Your task to perform on an android device: Open Reddit.com Image 0: 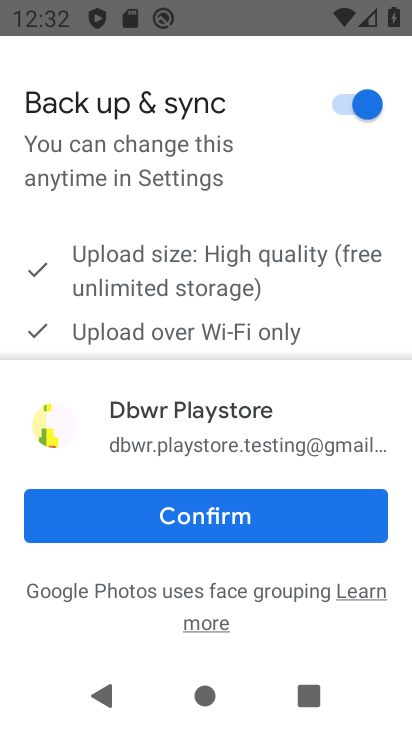
Step 0: press home button
Your task to perform on an android device: Open Reddit.com Image 1: 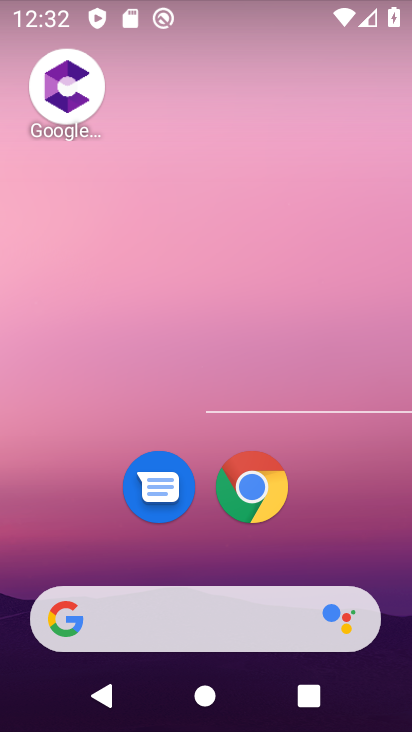
Step 1: click (270, 497)
Your task to perform on an android device: Open Reddit.com Image 2: 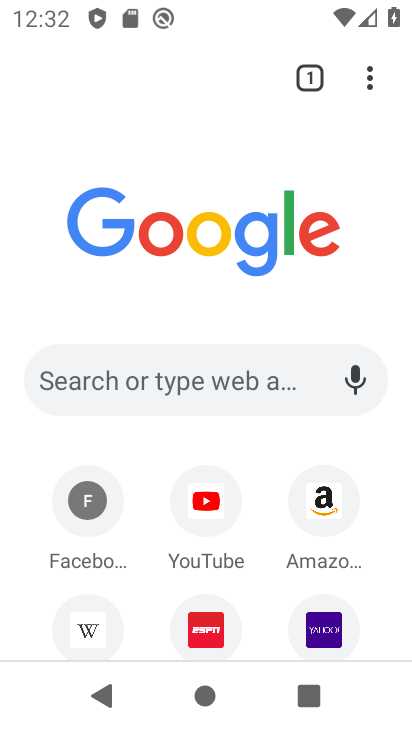
Step 2: click (240, 389)
Your task to perform on an android device: Open Reddit.com Image 3: 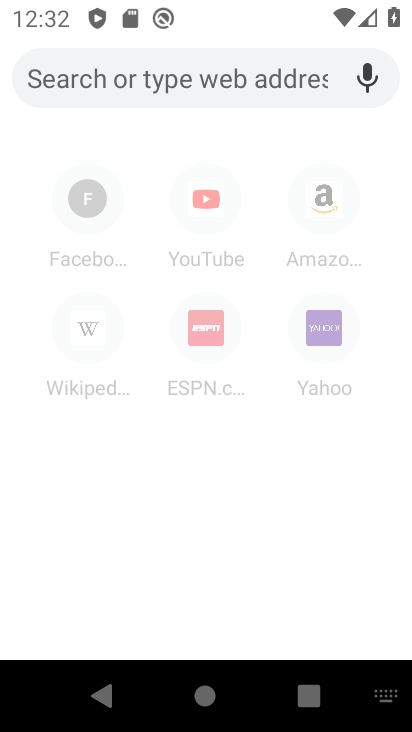
Step 3: type "Reddit.com"
Your task to perform on an android device: Open Reddit.com Image 4: 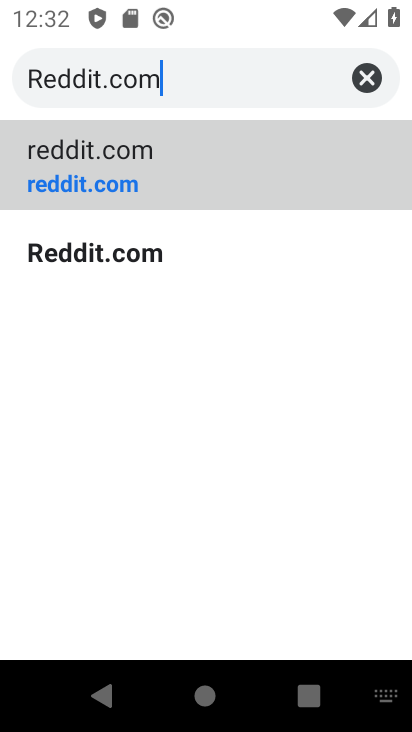
Step 4: type ""
Your task to perform on an android device: Open Reddit.com Image 5: 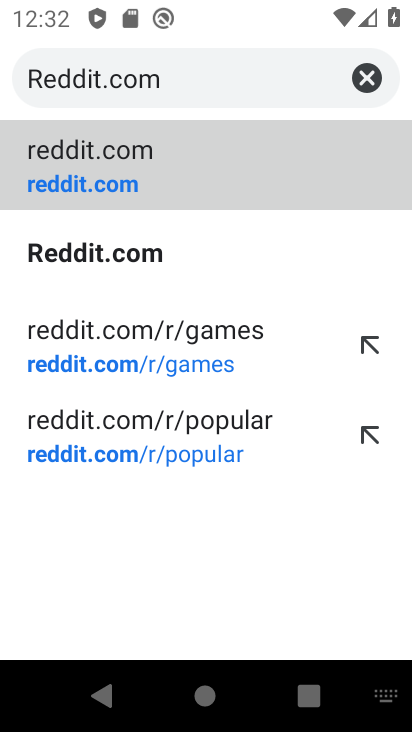
Step 5: click (98, 185)
Your task to perform on an android device: Open Reddit.com Image 6: 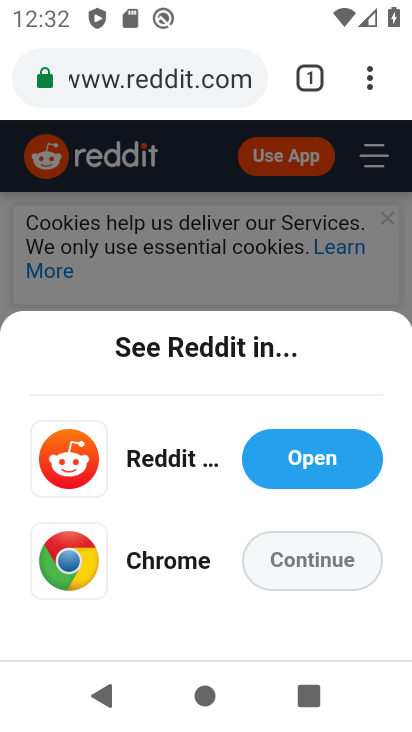
Step 6: task complete